Your task to perform on an android device: change notification settings in the gmail app Image 0: 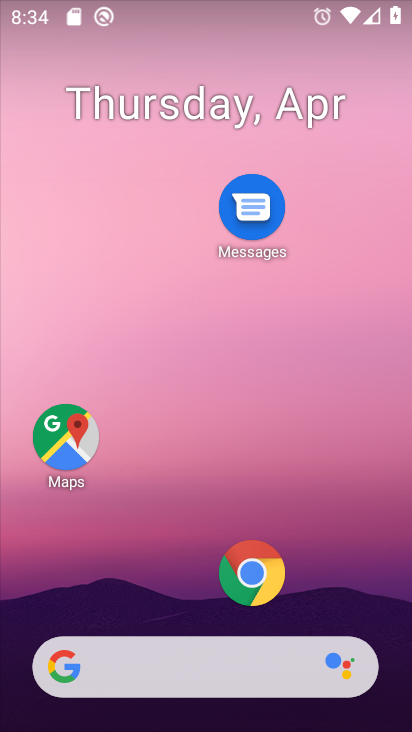
Step 0: click (216, 82)
Your task to perform on an android device: change notification settings in the gmail app Image 1: 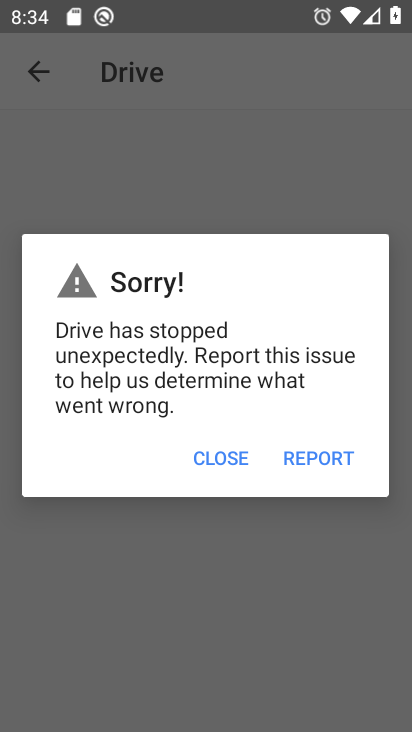
Step 1: press home button
Your task to perform on an android device: change notification settings in the gmail app Image 2: 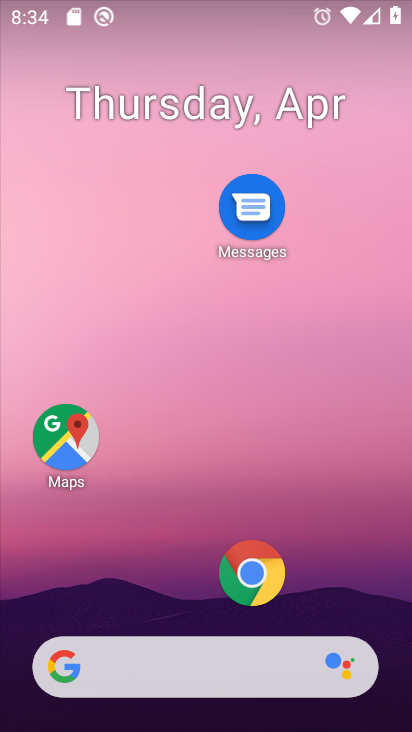
Step 2: drag from (320, 590) to (362, 81)
Your task to perform on an android device: change notification settings in the gmail app Image 3: 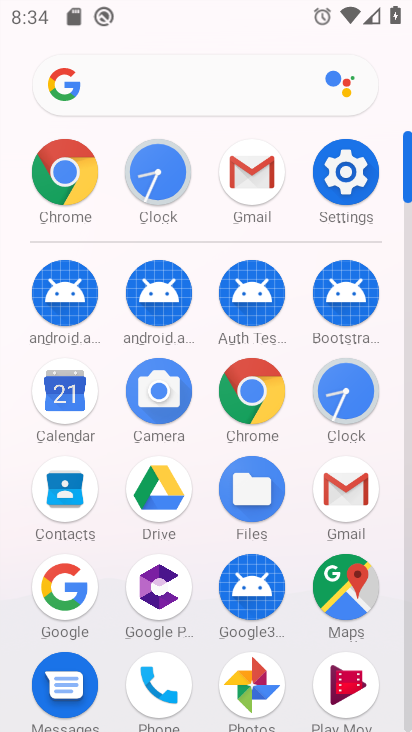
Step 3: click (344, 162)
Your task to perform on an android device: change notification settings in the gmail app Image 4: 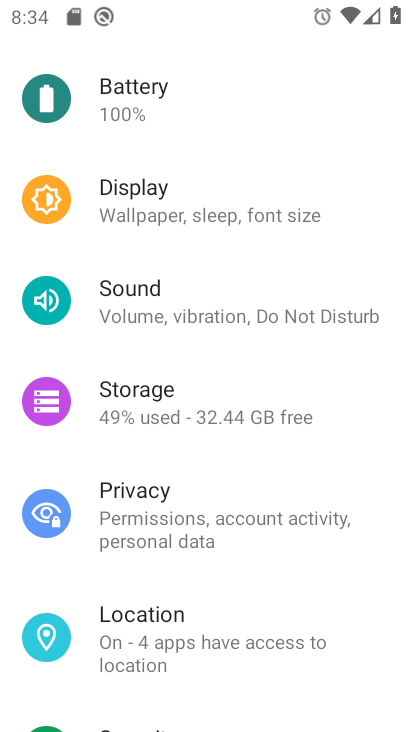
Step 4: drag from (183, 134) to (183, 533)
Your task to perform on an android device: change notification settings in the gmail app Image 5: 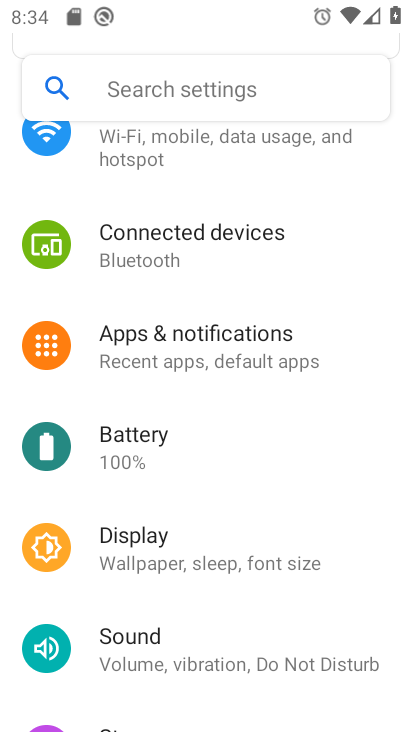
Step 5: click (302, 340)
Your task to perform on an android device: change notification settings in the gmail app Image 6: 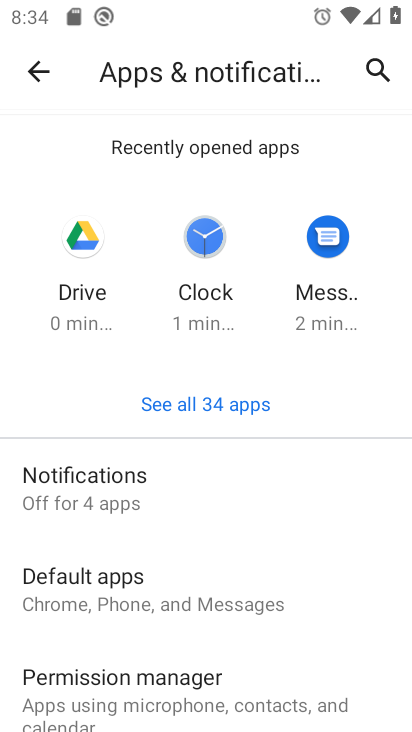
Step 6: click (148, 487)
Your task to perform on an android device: change notification settings in the gmail app Image 7: 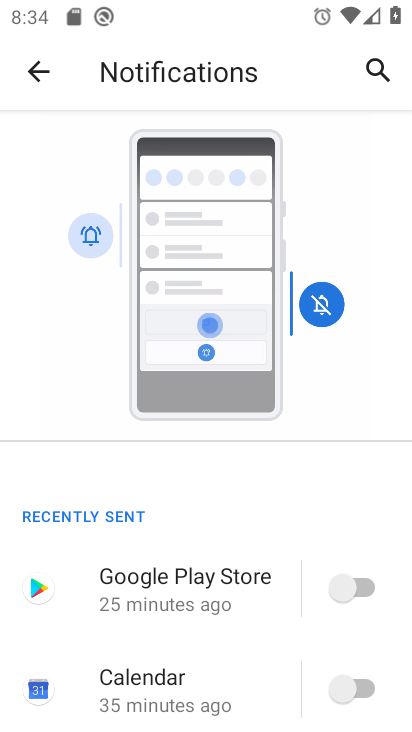
Step 7: drag from (209, 530) to (241, 235)
Your task to perform on an android device: change notification settings in the gmail app Image 8: 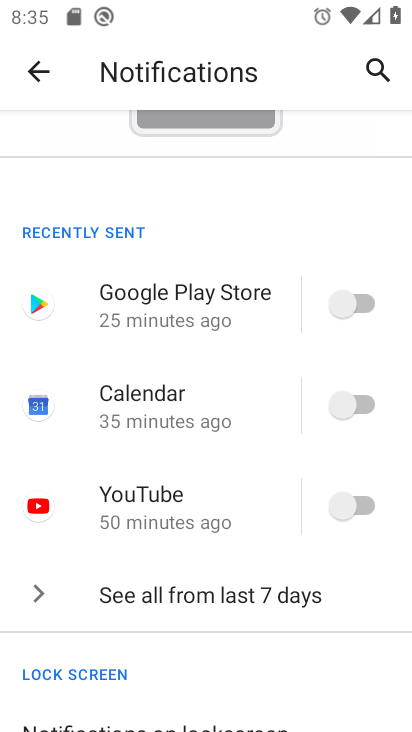
Step 8: click (45, 595)
Your task to perform on an android device: change notification settings in the gmail app Image 9: 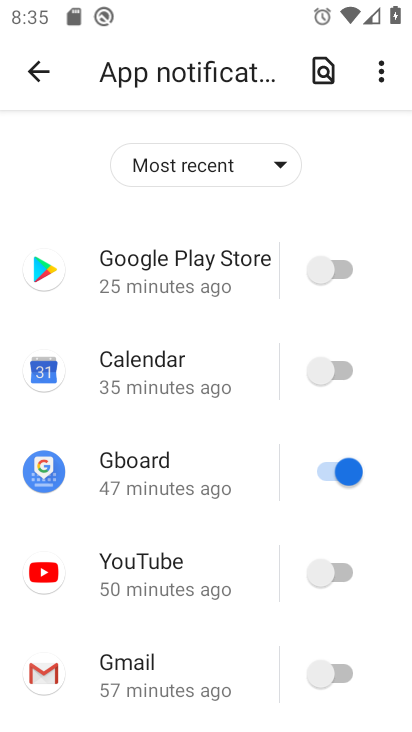
Step 9: click (91, 669)
Your task to perform on an android device: change notification settings in the gmail app Image 10: 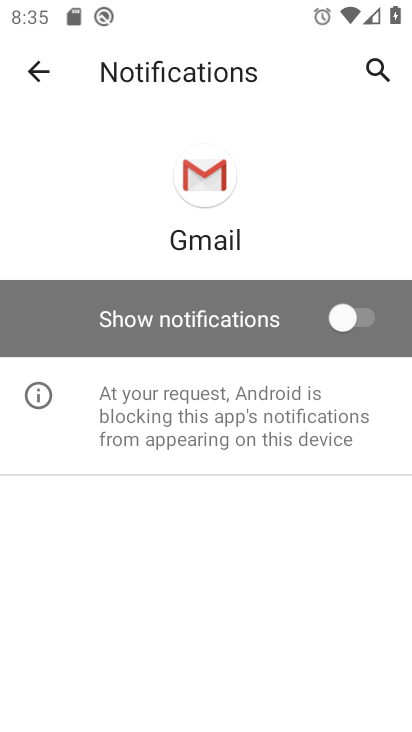
Step 10: click (368, 314)
Your task to perform on an android device: change notification settings in the gmail app Image 11: 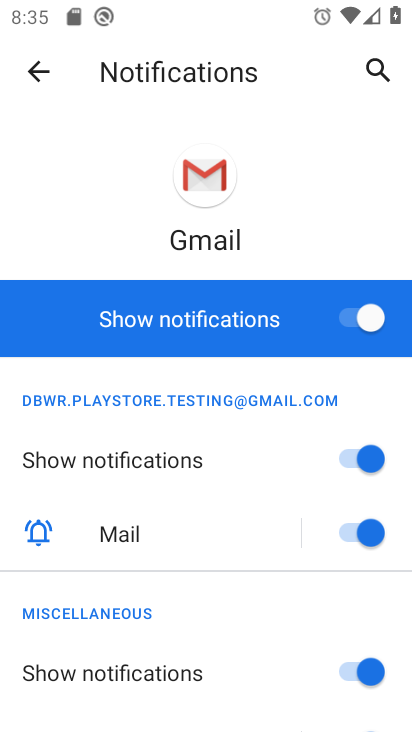
Step 11: task complete